Your task to perform on an android device: show emergency info Image 0: 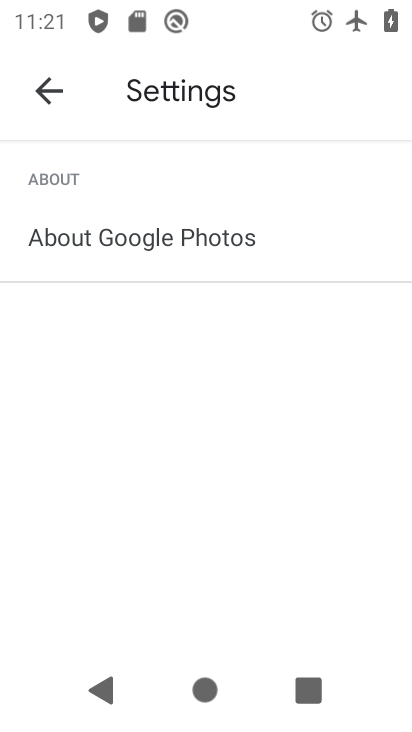
Step 0: press home button
Your task to perform on an android device: show emergency info Image 1: 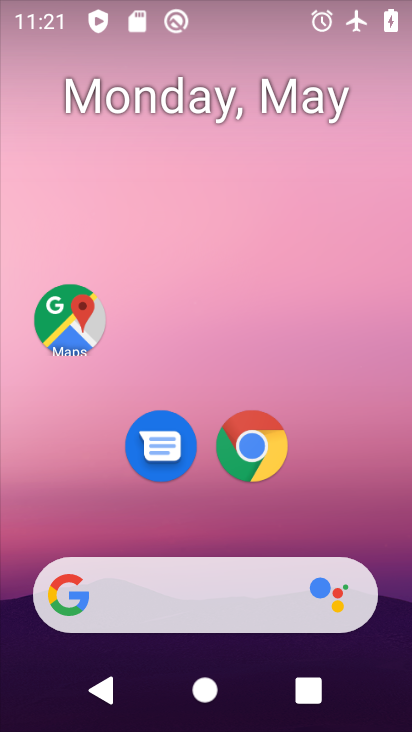
Step 1: drag from (74, 506) to (206, 179)
Your task to perform on an android device: show emergency info Image 2: 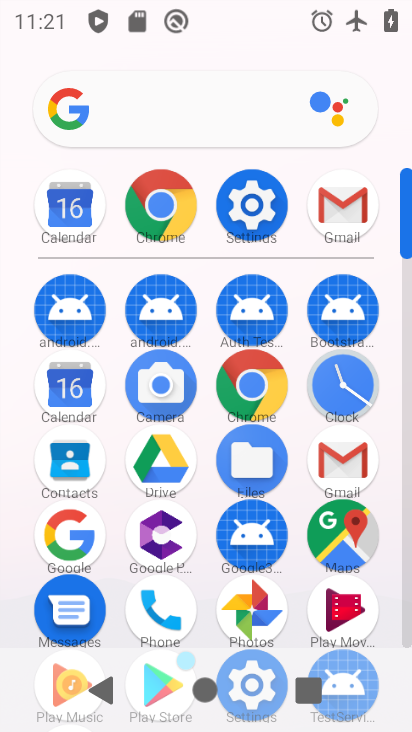
Step 2: click (243, 215)
Your task to perform on an android device: show emergency info Image 3: 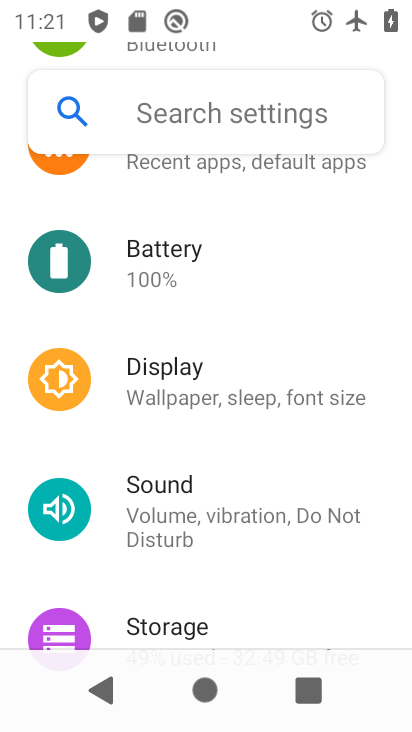
Step 3: drag from (223, 601) to (316, 144)
Your task to perform on an android device: show emergency info Image 4: 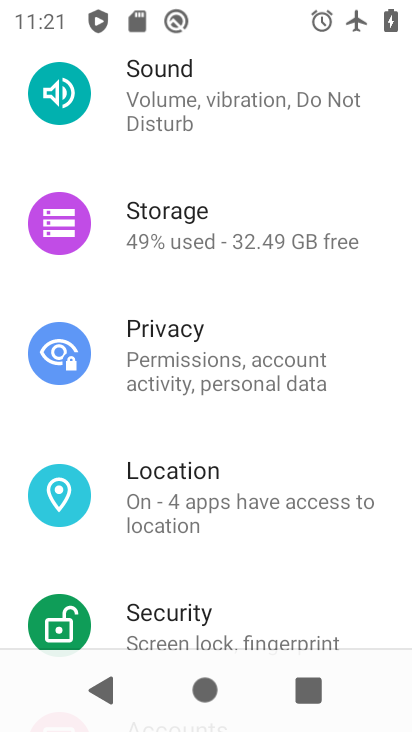
Step 4: drag from (199, 632) to (216, 183)
Your task to perform on an android device: show emergency info Image 5: 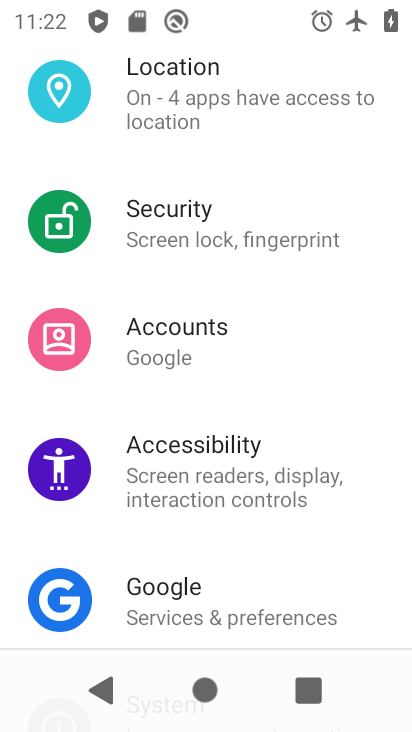
Step 5: drag from (168, 606) to (167, 391)
Your task to perform on an android device: show emergency info Image 6: 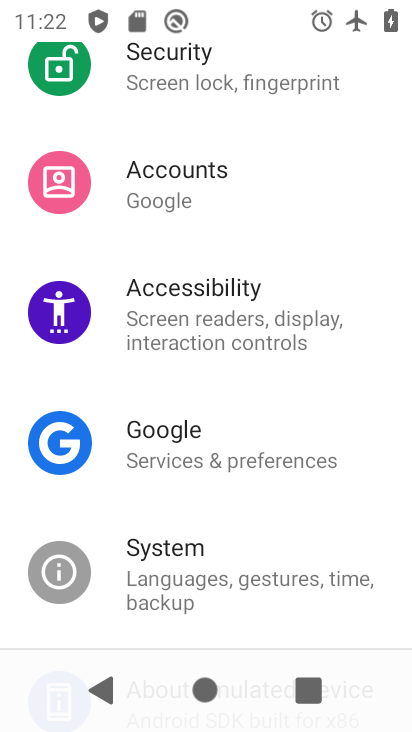
Step 6: drag from (172, 610) to (198, 174)
Your task to perform on an android device: show emergency info Image 7: 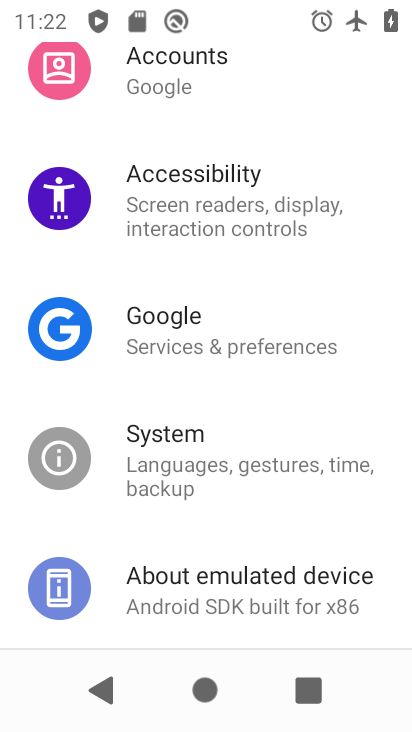
Step 7: click (192, 575)
Your task to perform on an android device: show emergency info Image 8: 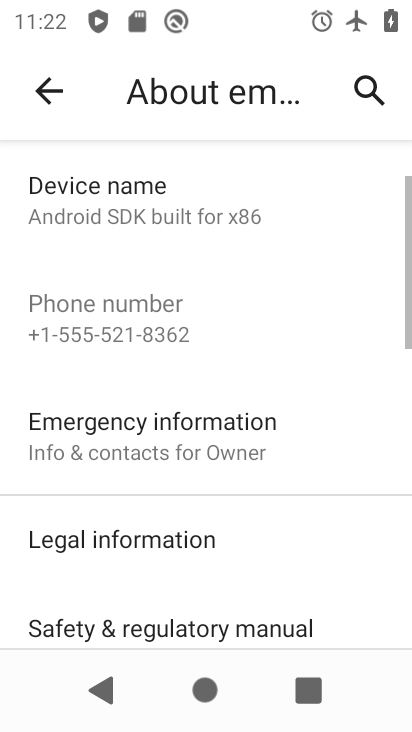
Step 8: click (142, 437)
Your task to perform on an android device: show emergency info Image 9: 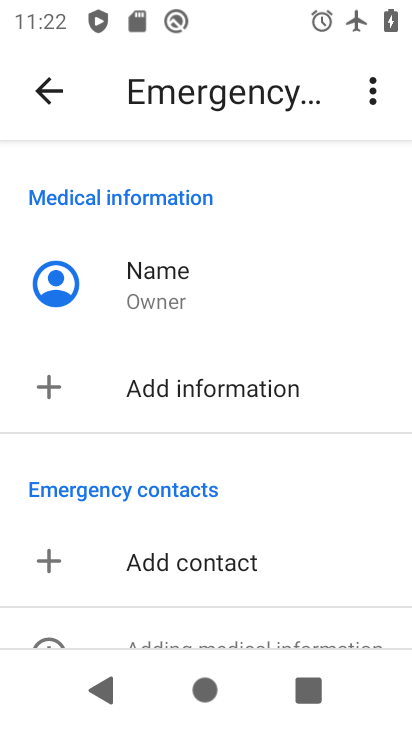
Step 9: task complete